Your task to perform on an android device: change notification settings in the gmail app Image 0: 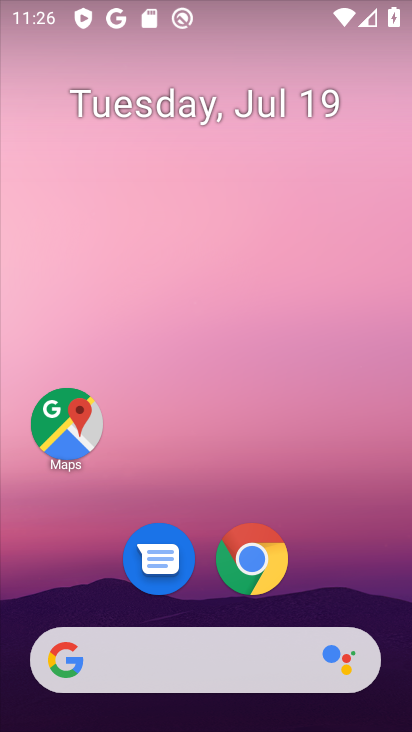
Step 0: drag from (233, 389) to (237, 26)
Your task to perform on an android device: change notification settings in the gmail app Image 1: 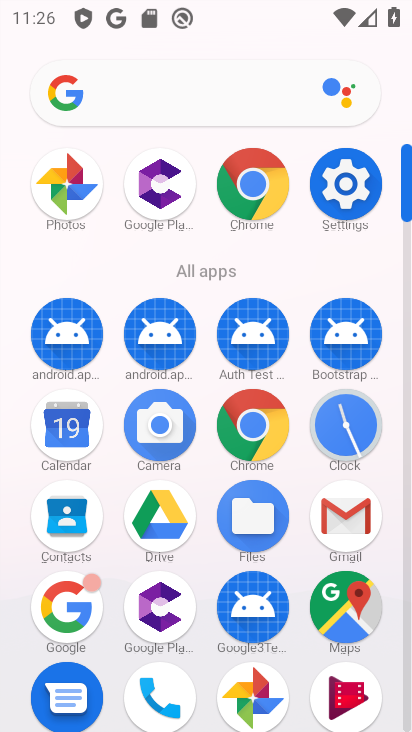
Step 1: click (357, 523)
Your task to perform on an android device: change notification settings in the gmail app Image 2: 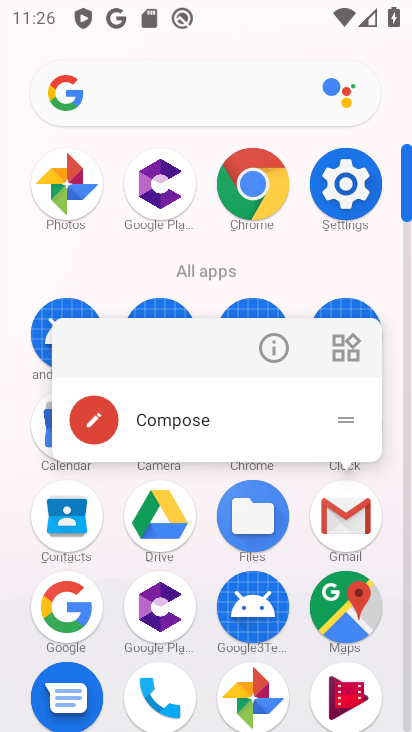
Step 2: click (285, 346)
Your task to perform on an android device: change notification settings in the gmail app Image 3: 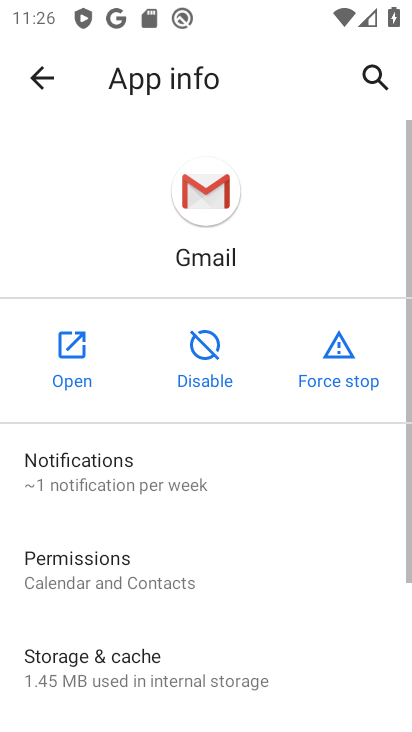
Step 3: click (171, 460)
Your task to perform on an android device: change notification settings in the gmail app Image 4: 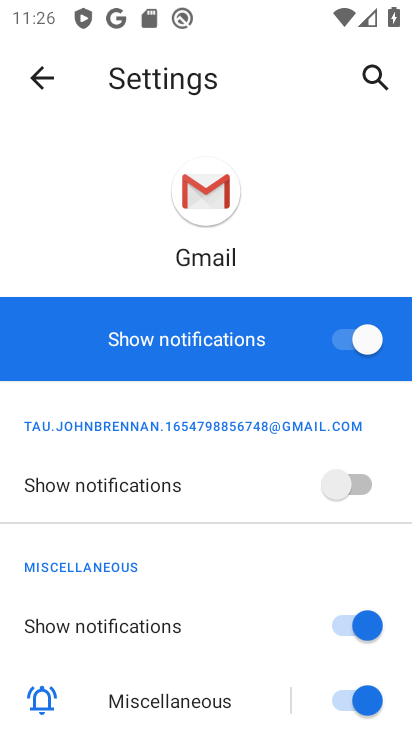
Step 4: click (345, 485)
Your task to perform on an android device: change notification settings in the gmail app Image 5: 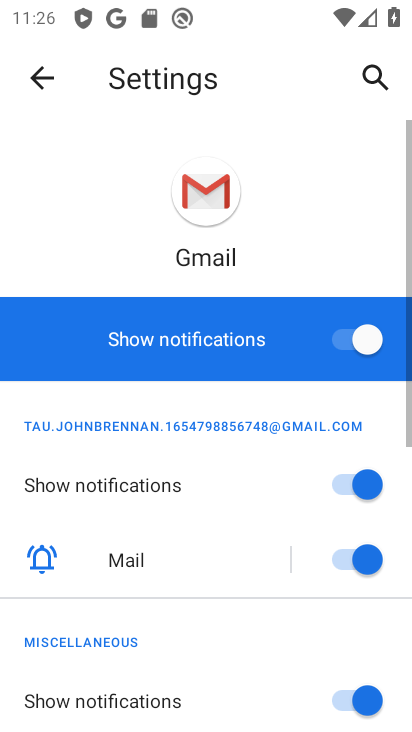
Step 5: task complete